Your task to perform on an android device: Clear the shopping cart on walmart.com. Search for "usb-a" on walmart.com, select the first entry, and add it to the cart. Image 0: 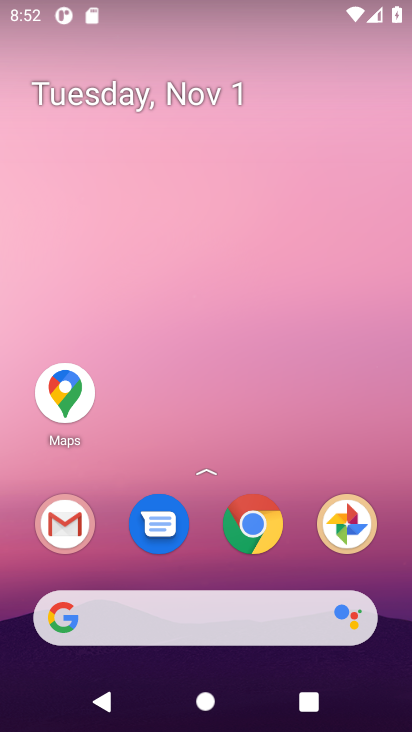
Step 0: press home button
Your task to perform on an android device: Clear the shopping cart on walmart.com. Search for "usb-a" on walmart.com, select the first entry, and add it to the cart. Image 1: 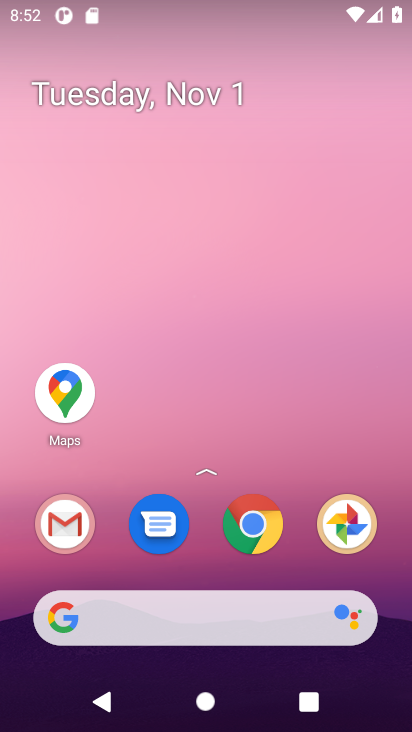
Step 1: click (104, 616)
Your task to perform on an android device: Clear the shopping cart on walmart.com. Search for "usb-a" on walmart.com, select the first entry, and add it to the cart. Image 2: 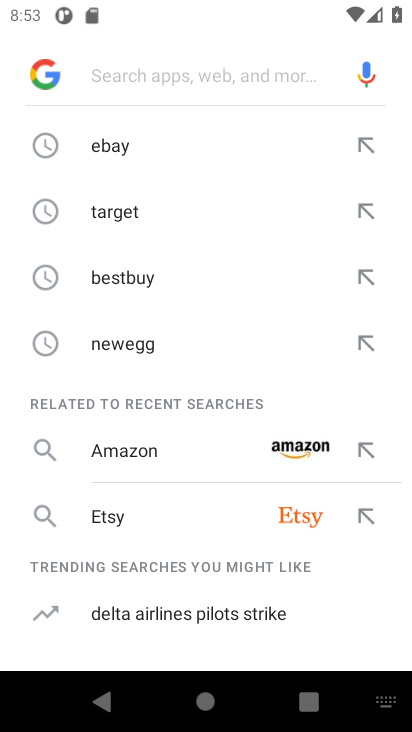
Step 2: type "walmart.com"
Your task to perform on an android device: Clear the shopping cart on walmart.com. Search for "usb-a" on walmart.com, select the first entry, and add it to the cart. Image 3: 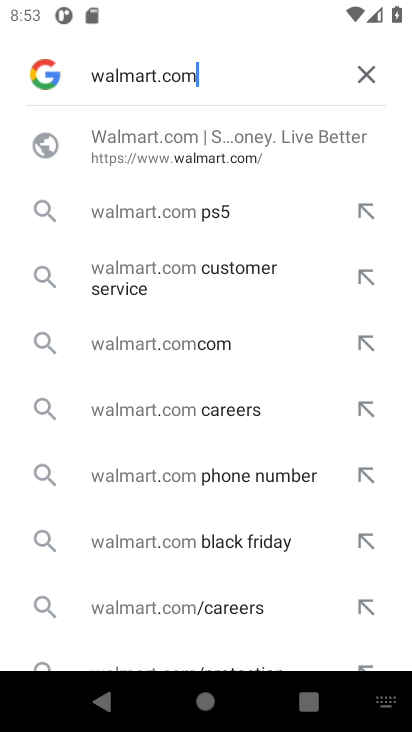
Step 3: press enter
Your task to perform on an android device: Clear the shopping cart on walmart.com. Search for "usb-a" on walmart.com, select the first entry, and add it to the cart. Image 4: 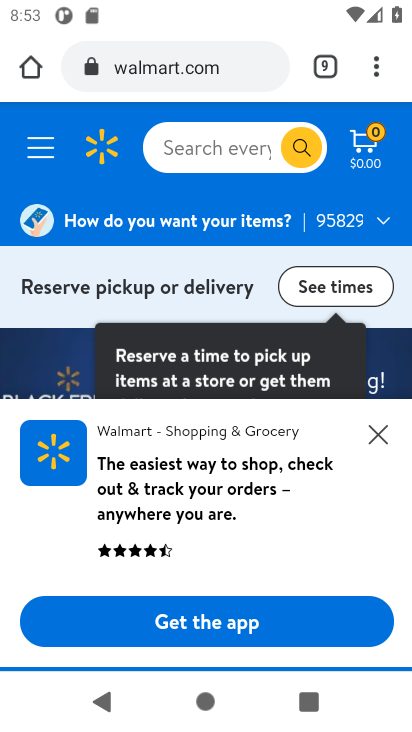
Step 4: click (372, 136)
Your task to perform on an android device: Clear the shopping cart on walmart.com. Search for "usb-a" on walmart.com, select the first entry, and add it to the cart. Image 5: 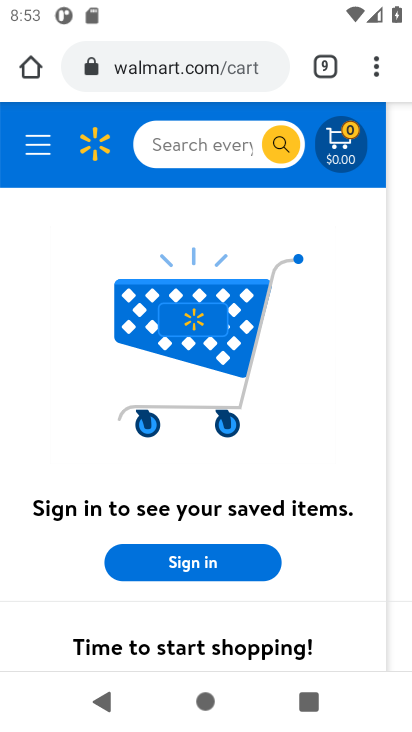
Step 5: click (158, 135)
Your task to perform on an android device: Clear the shopping cart on walmart.com. Search for "usb-a" on walmart.com, select the first entry, and add it to the cart. Image 6: 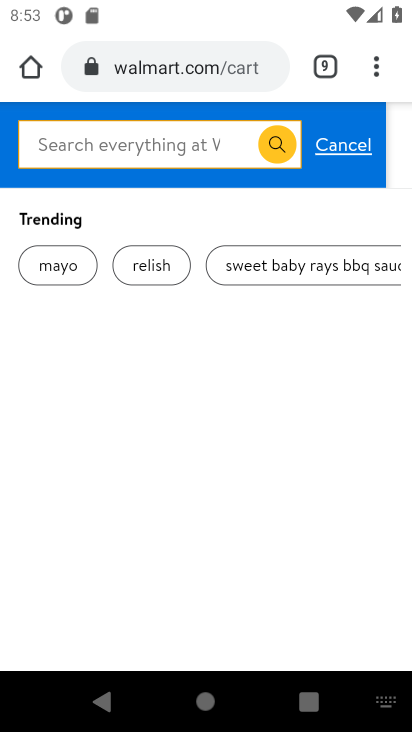
Step 6: type "usb a"
Your task to perform on an android device: Clear the shopping cart on walmart.com. Search for "usb-a" on walmart.com, select the first entry, and add it to the cart. Image 7: 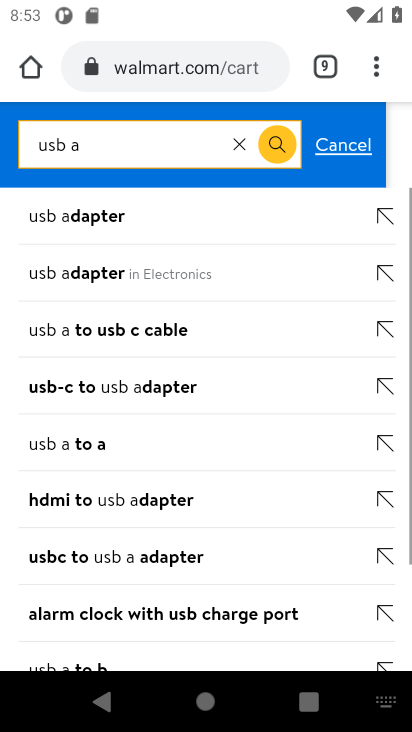
Step 7: click (278, 136)
Your task to perform on an android device: Clear the shopping cart on walmart.com. Search for "usb-a" on walmart.com, select the first entry, and add it to the cart. Image 8: 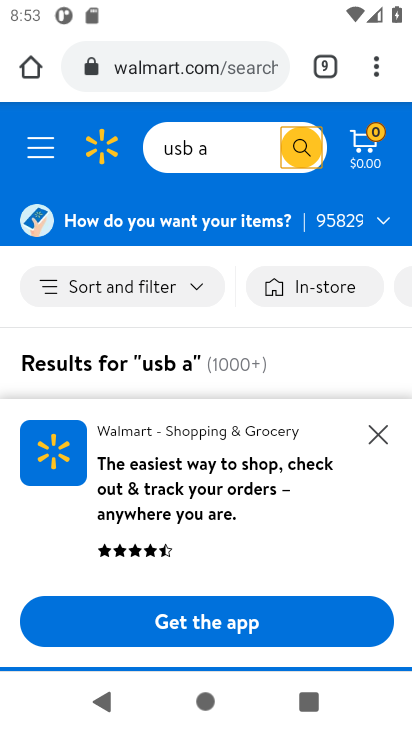
Step 8: click (377, 431)
Your task to perform on an android device: Clear the shopping cart on walmart.com. Search for "usb-a" on walmart.com, select the first entry, and add it to the cart. Image 9: 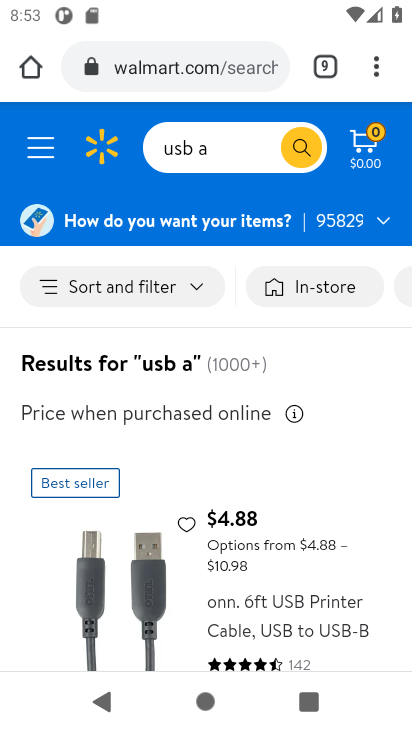
Step 9: drag from (307, 604) to (325, 457)
Your task to perform on an android device: Clear the shopping cart on walmart.com. Search for "usb-a" on walmart.com, select the first entry, and add it to the cart. Image 10: 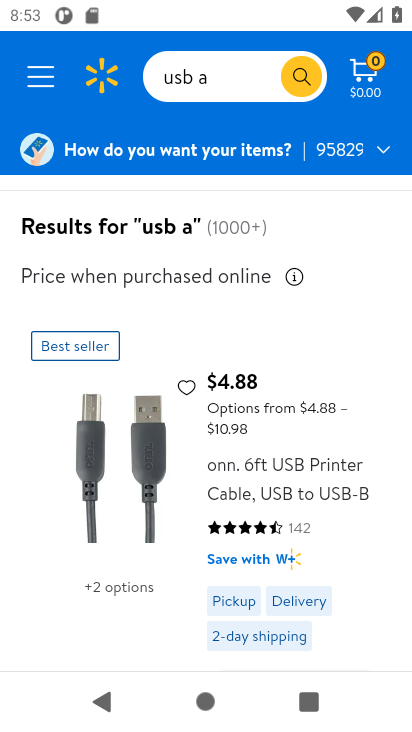
Step 10: drag from (291, 592) to (320, 359)
Your task to perform on an android device: Clear the shopping cart on walmart.com. Search for "usb-a" on walmart.com, select the first entry, and add it to the cart. Image 11: 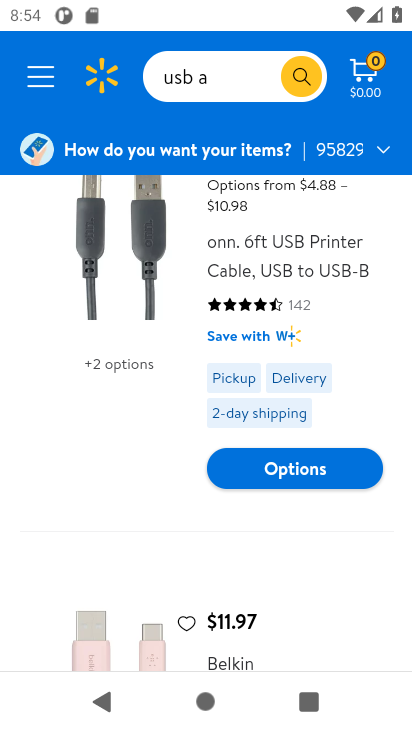
Step 11: drag from (265, 617) to (285, 302)
Your task to perform on an android device: Clear the shopping cart on walmart.com. Search for "usb-a" on walmart.com, select the first entry, and add it to the cart. Image 12: 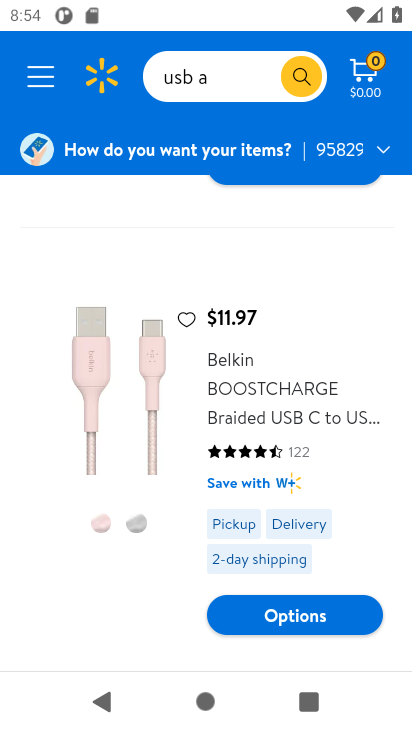
Step 12: drag from (173, 589) to (215, 299)
Your task to perform on an android device: Clear the shopping cart on walmart.com. Search for "usb-a" on walmart.com, select the first entry, and add it to the cart. Image 13: 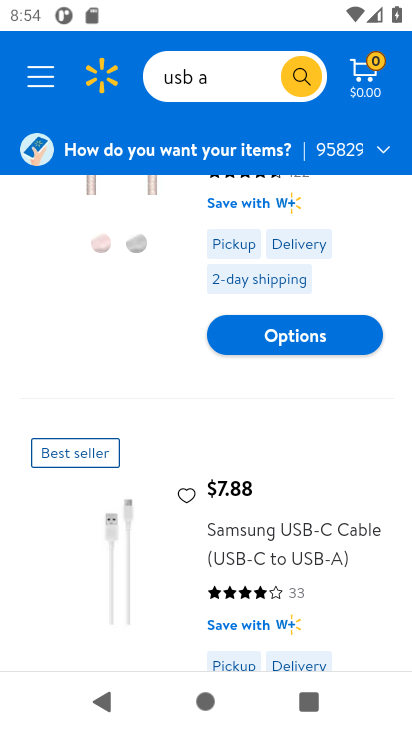
Step 13: drag from (140, 600) to (169, 445)
Your task to perform on an android device: Clear the shopping cart on walmart.com. Search for "usb-a" on walmart.com, select the first entry, and add it to the cart. Image 14: 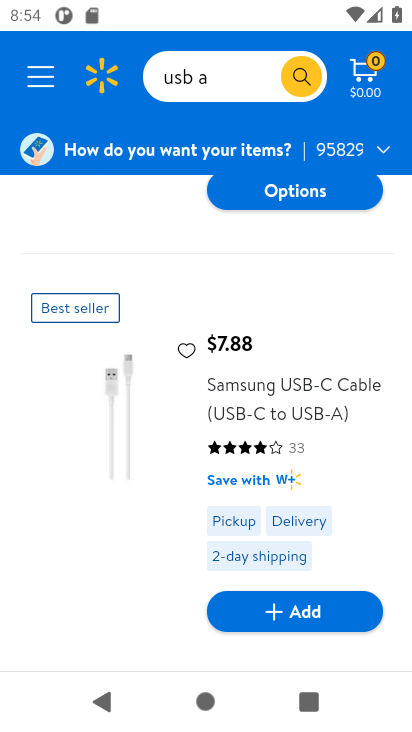
Step 14: drag from (154, 591) to (171, 366)
Your task to perform on an android device: Clear the shopping cart on walmart.com. Search for "usb-a" on walmart.com, select the first entry, and add it to the cart. Image 15: 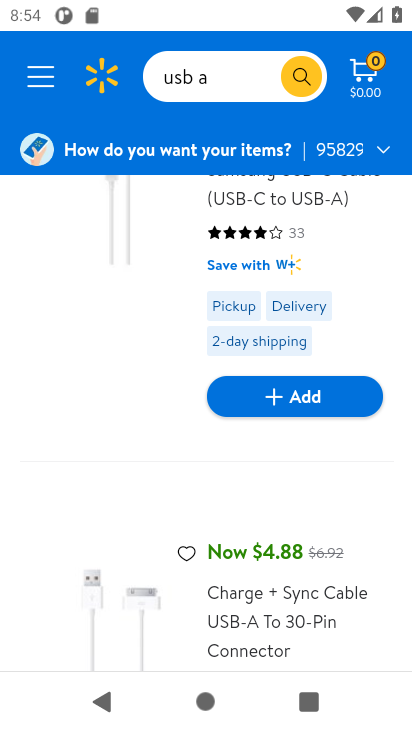
Step 15: drag from (258, 630) to (262, 412)
Your task to perform on an android device: Clear the shopping cart on walmart.com. Search for "usb-a" on walmart.com, select the first entry, and add it to the cart. Image 16: 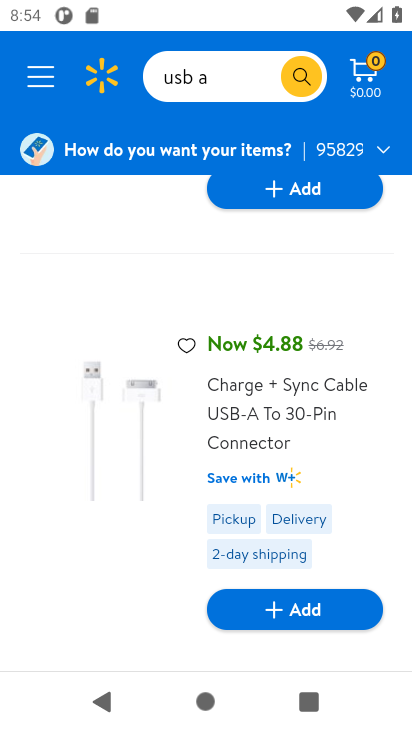
Step 16: click (297, 609)
Your task to perform on an android device: Clear the shopping cart on walmart.com. Search for "usb-a" on walmart.com, select the first entry, and add it to the cart. Image 17: 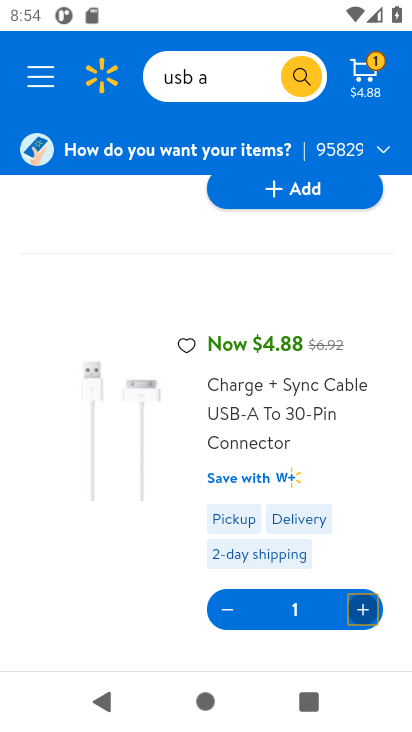
Step 17: task complete